Your task to perform on an android device: turn pop-ups off in chrome Image 0: 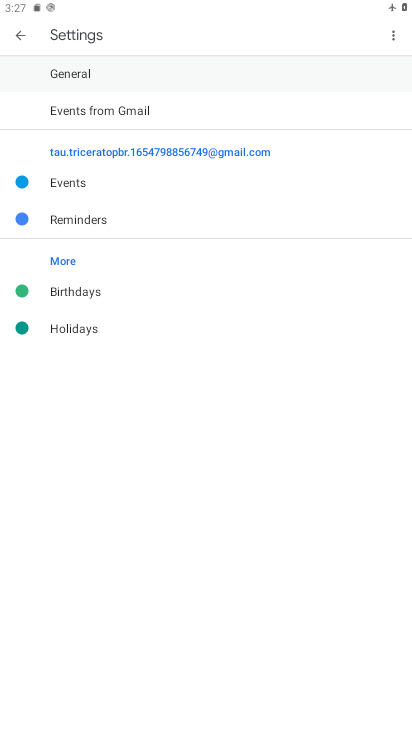
Step 0: press home button
Your task to perform on an android device: turn pop-ups off in chrome Image 1: 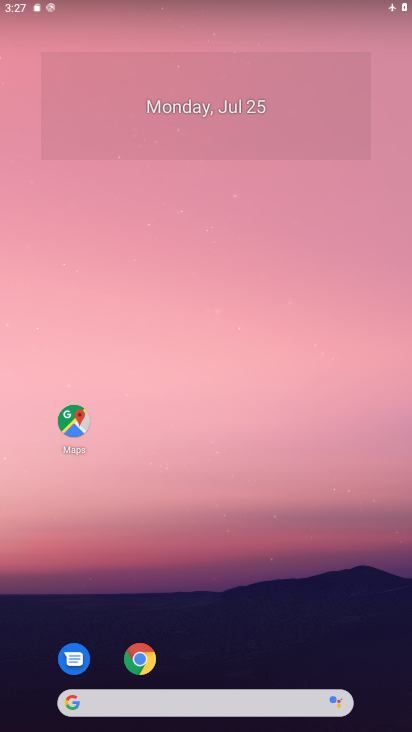
Step 1: click (140, 659)
Your task to perform on an android device: turn pop-ups off in chrome Image 2: 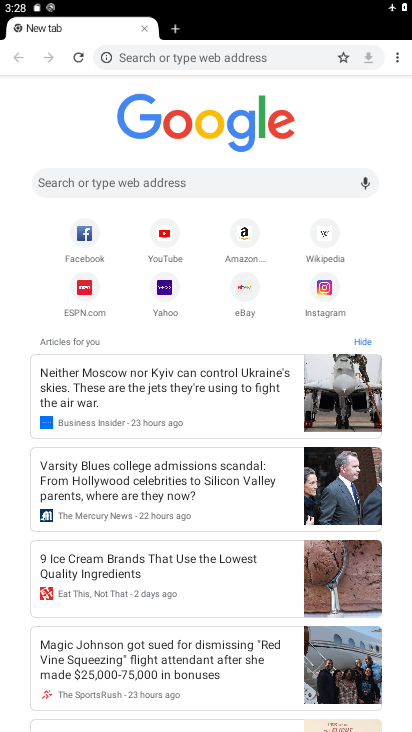
Step 2: click (399, 60)
Your task to perform on an android device: turn pop-ups off in chrome Image 3: 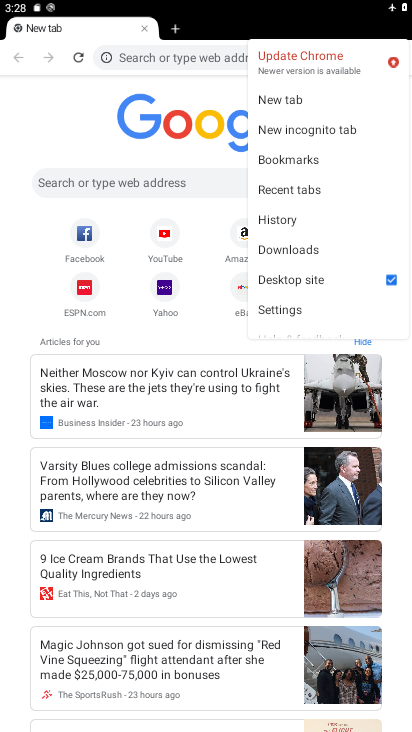
Step 3: click (305, 313)
Your task to perform on an android device: turn pop-ups off in chrome Image 4: 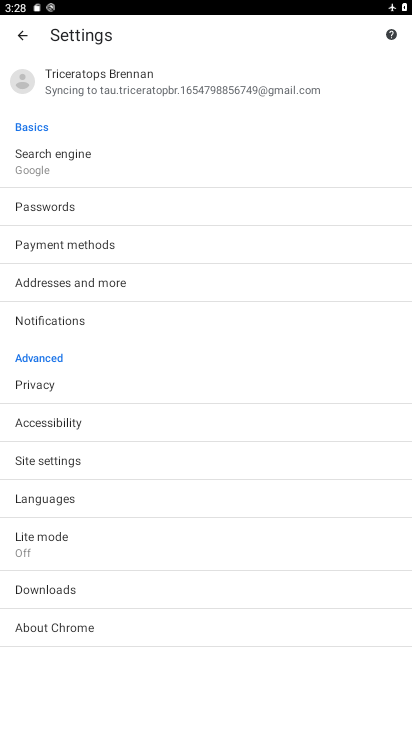
Step 4: click (73, 466)
Your task to perform on an android device: turn pop-ups off in chrome Image 5: 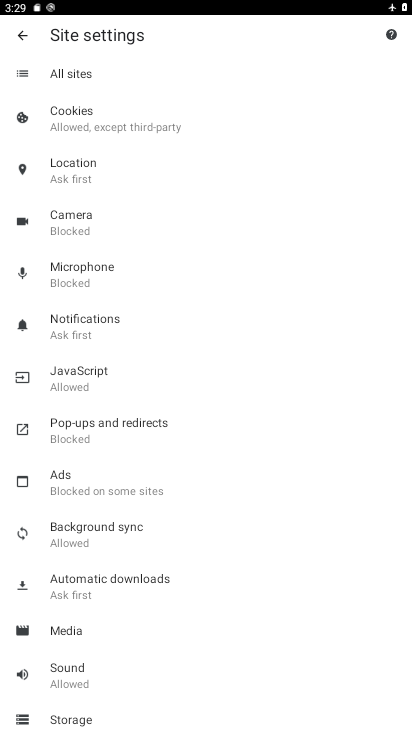
Step 5: click (93, 435)
Your task to perform on an android device: turn pop-ups off in chrome Image 6: 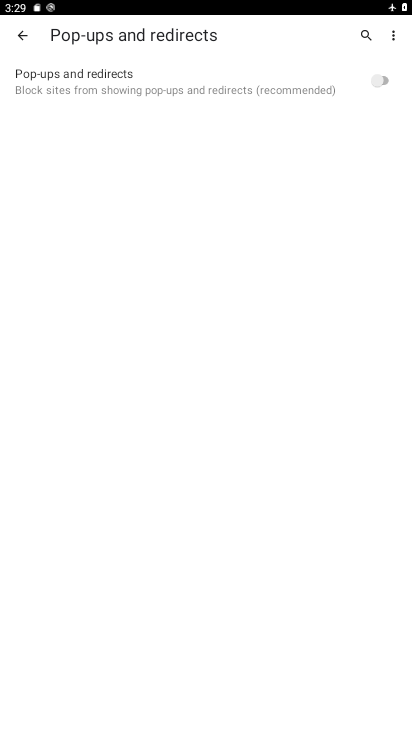
Step 6: task complete